Your task to perform on an android device: Open Yahoo.com Image 0: 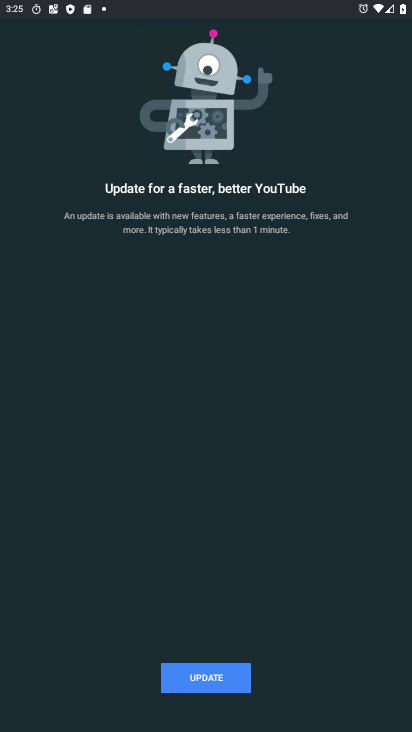
Step 0: press home button
Your task to perform on an android device: Open Yahoo.com Image 1: 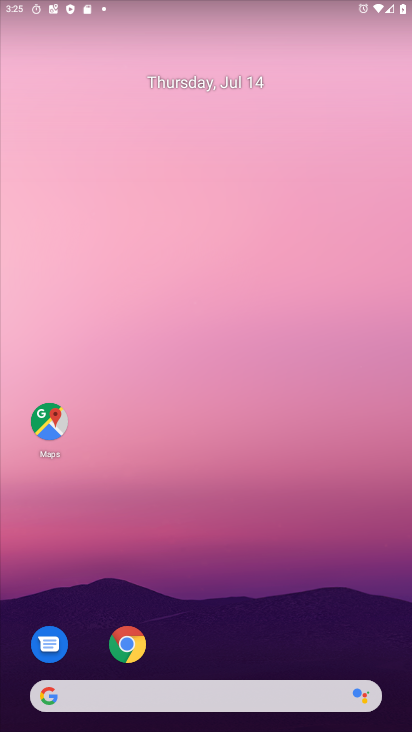
Step 1: click (120, 698)
Your task to perform on an android device: Open Yahoo.com Image 2: 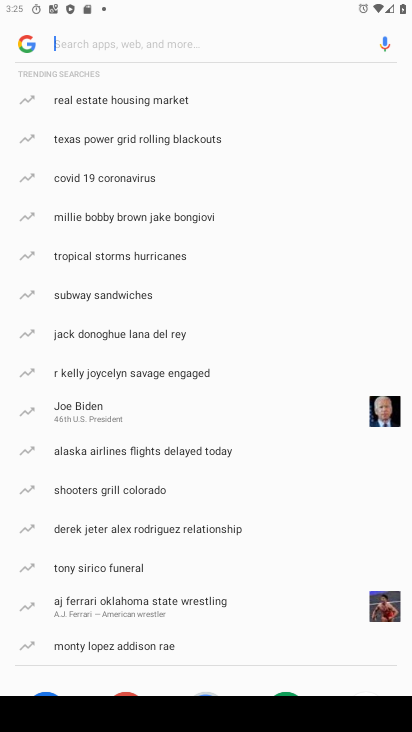
Step 2: type "Yahoo.com"
Your task to perform on an android device: Open Yahoo.com Image 3: 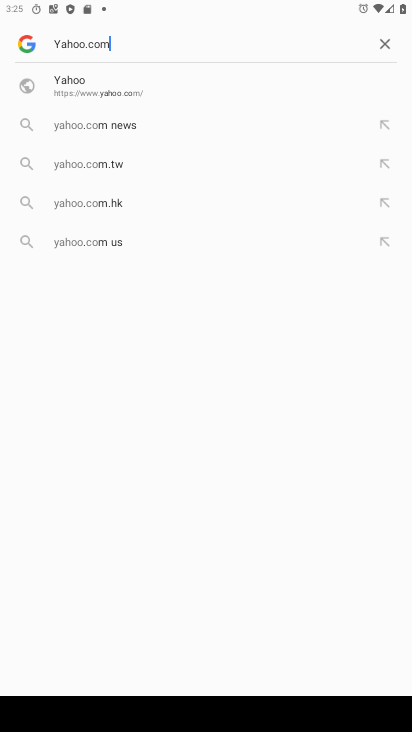
Step 3: type ""
Your task to perform on an android device: Open Yahoo.com Image 4: 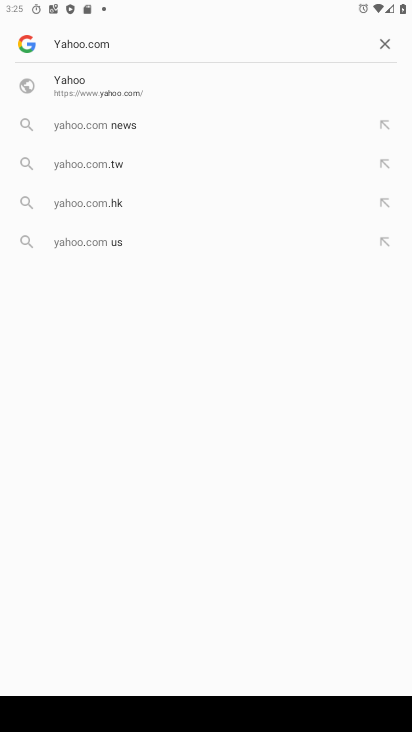
Step 4: click (73, 82)
Your task to perform on an android device: Open Yahoo.com Image 5: 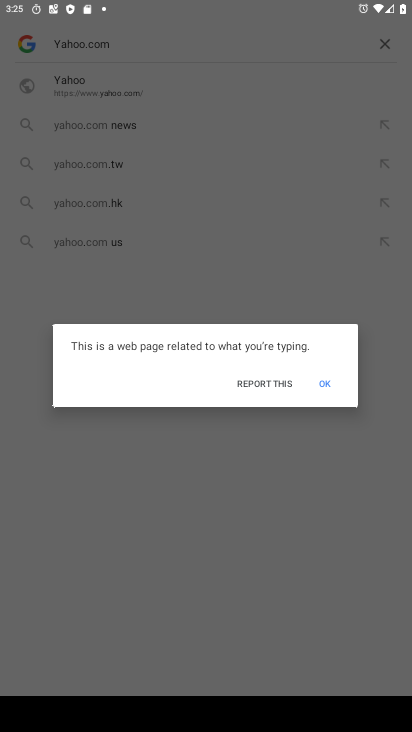
Step 5: click (322, 381)
Your task to perform on an android device: Open Yahoo.com Image 6: 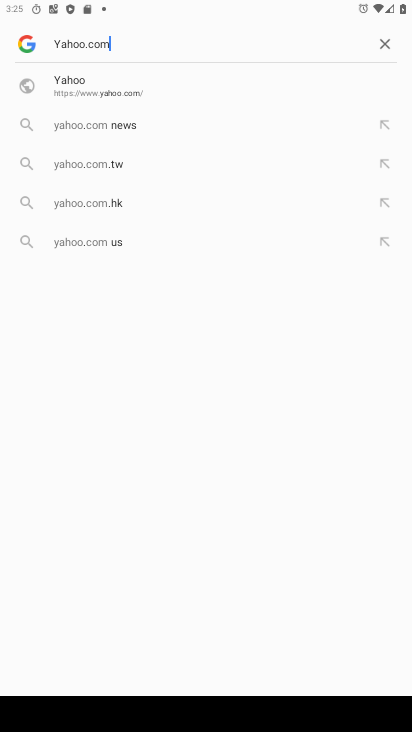
Step 6: click (81, 65)
Your task to perform on an android device: Open Yahoo.com Image 7: 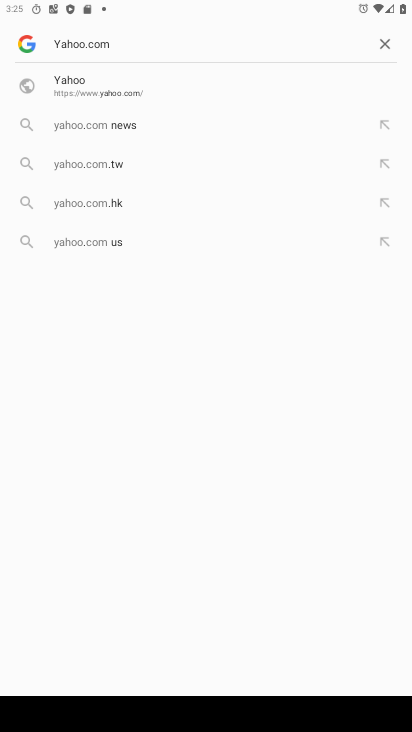
Step 7: click (83, 81)
Your task to perform on an android device: Open Yahoo.com Image 8: 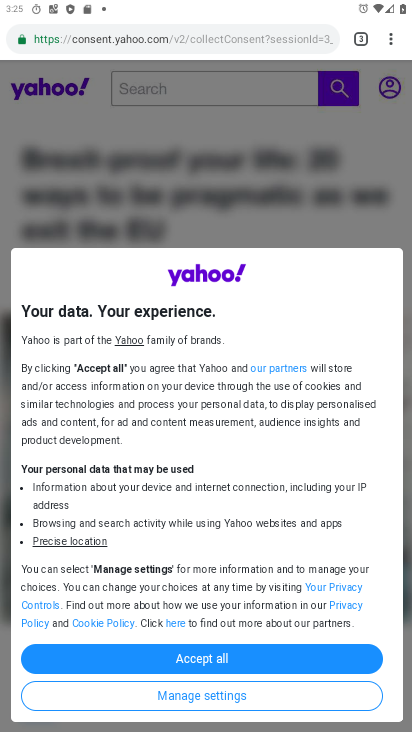
Step 8: task complete